Your task to perform on an android device: uninstall "Google Play Music" Image 0: 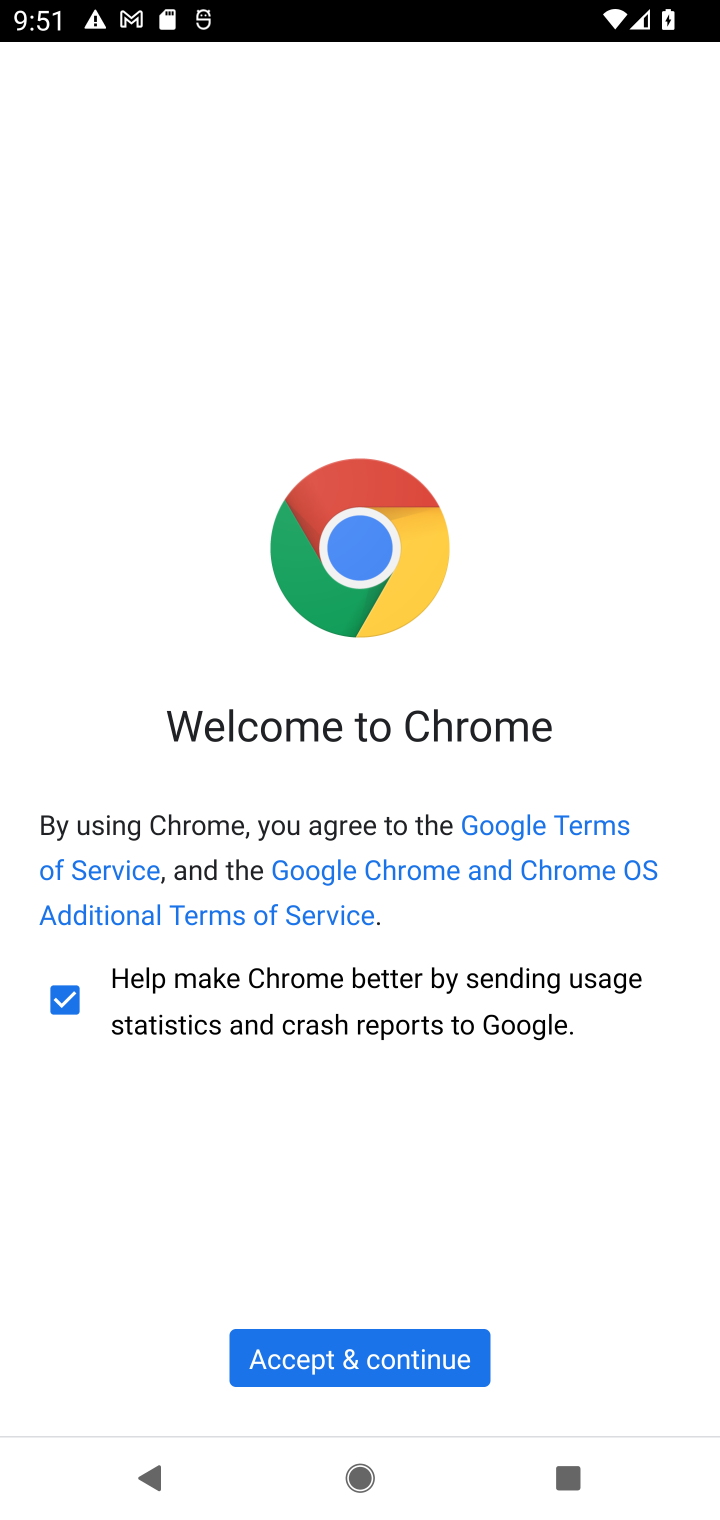
Step 0: press home button
Your task to perform on an android device: uninstall "Google Play Music" Image 1: 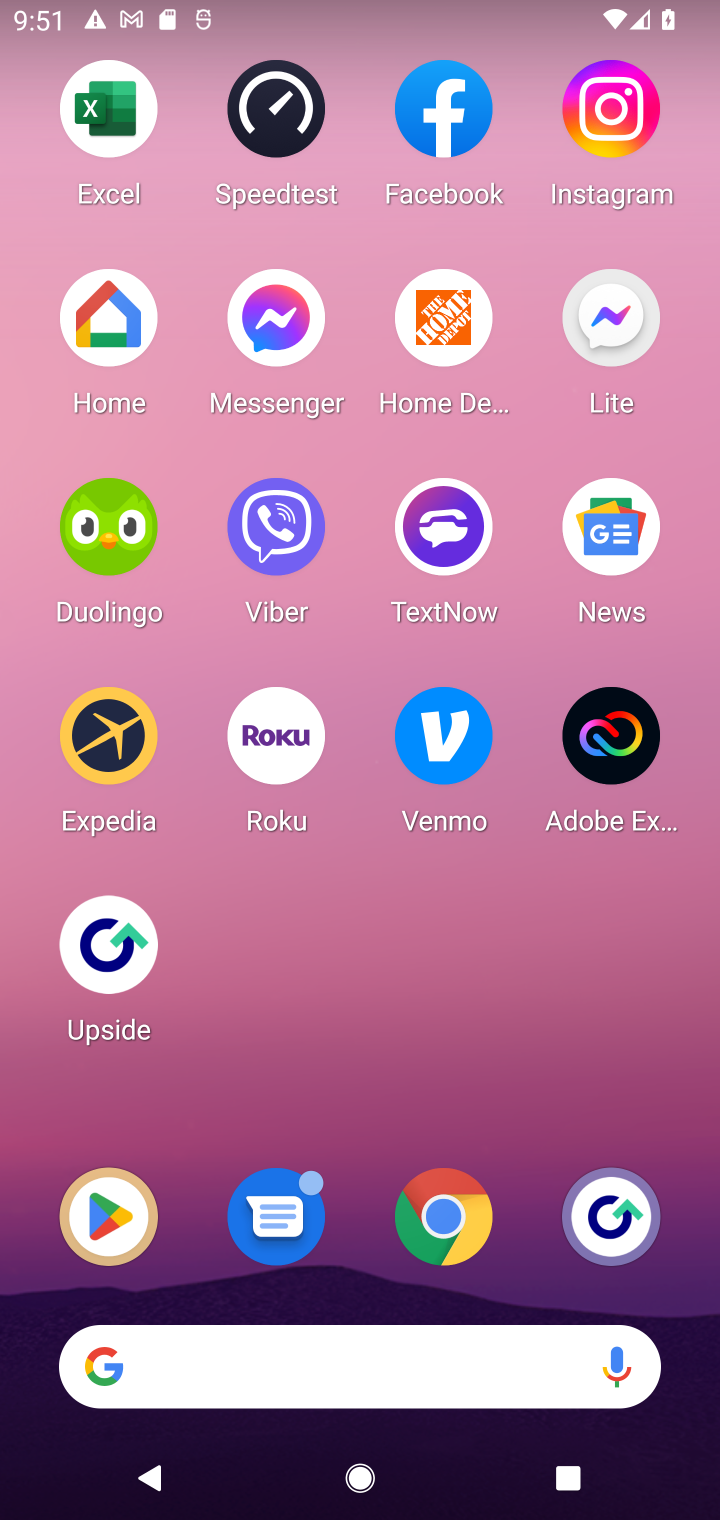
Step 1: click (104, 1220)
Your task to perform on an android device: uninstall "Google Play Music" Image 2: 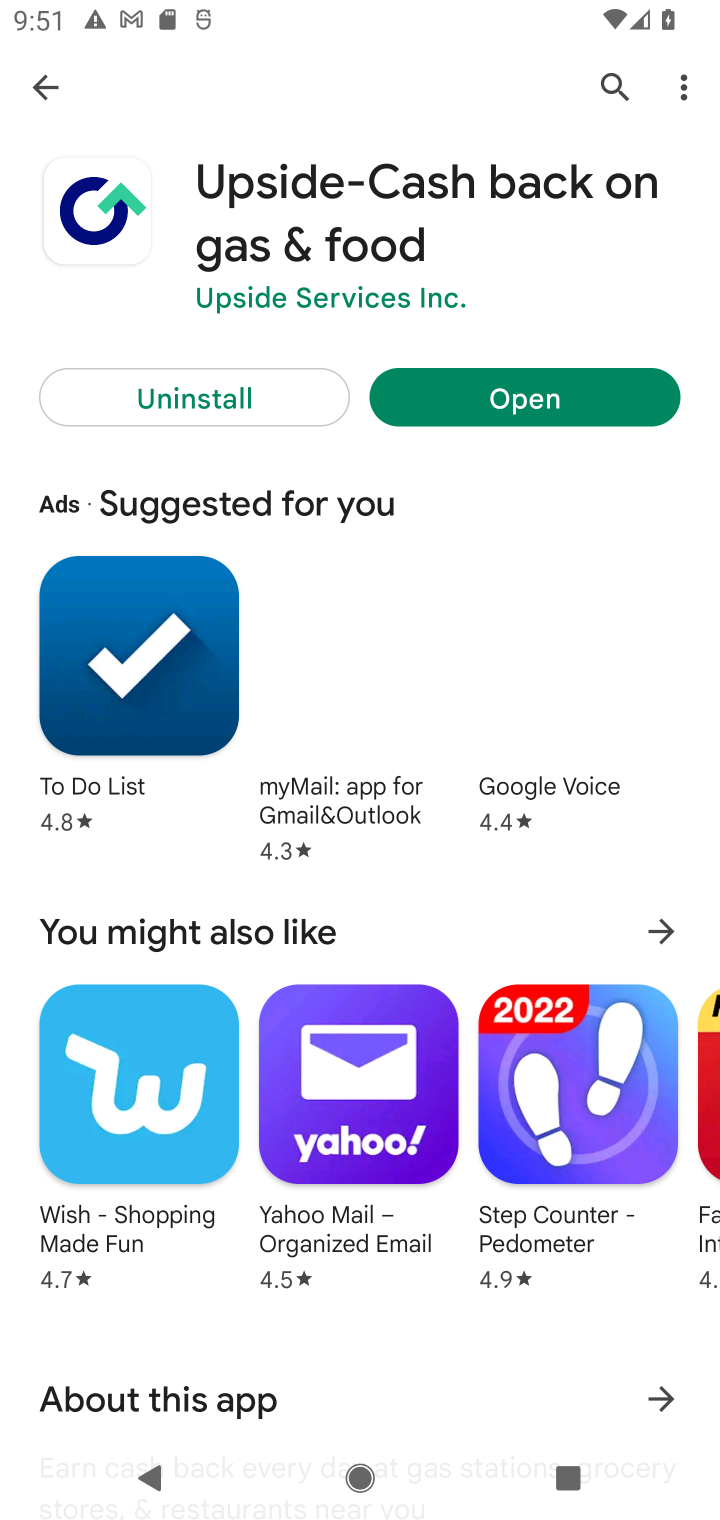
Step 2: click (609, 80)
Your task to perform on an android device: uninstall "Google Play Music" Image 3: 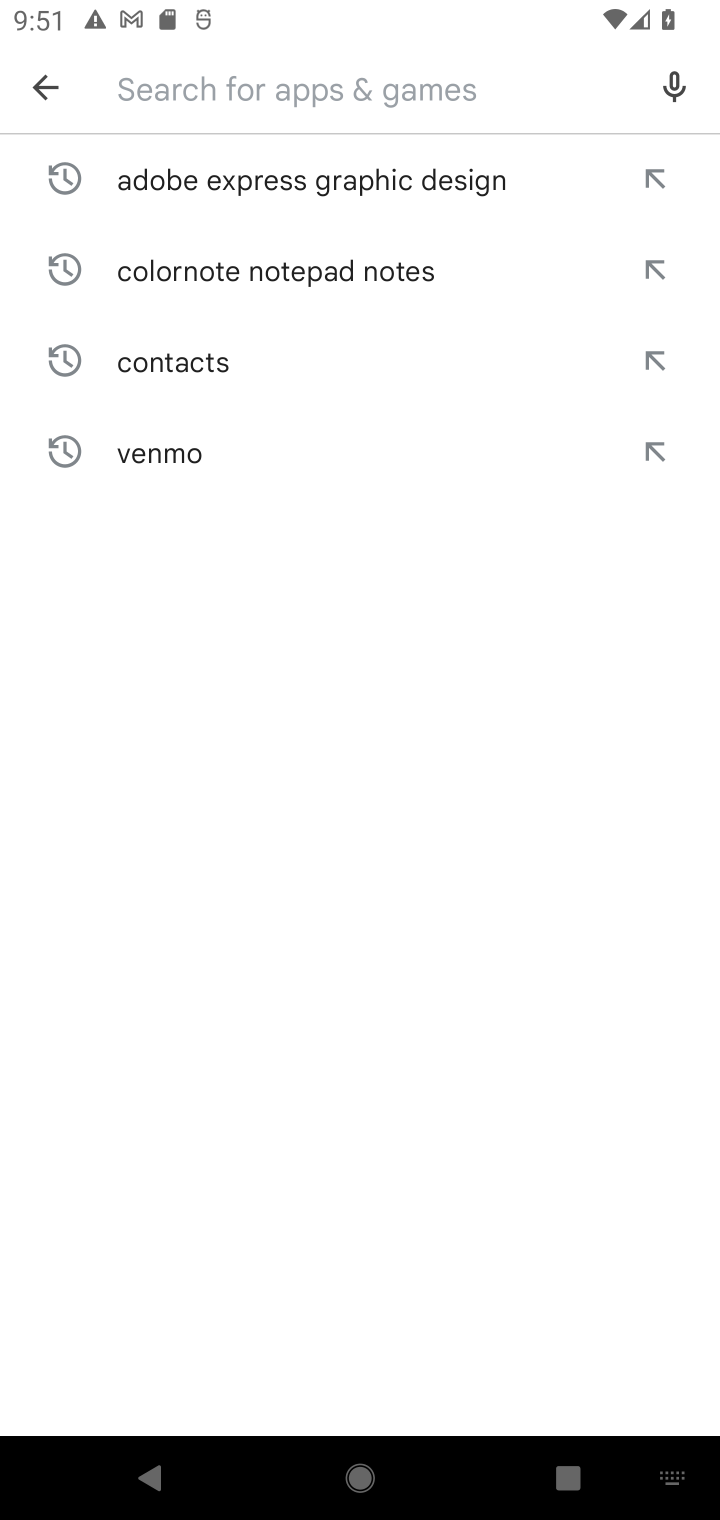
Step 3: type "Google Play Music"
Your task to perform on an android device: uninstall "Google Play Music" Image 4: 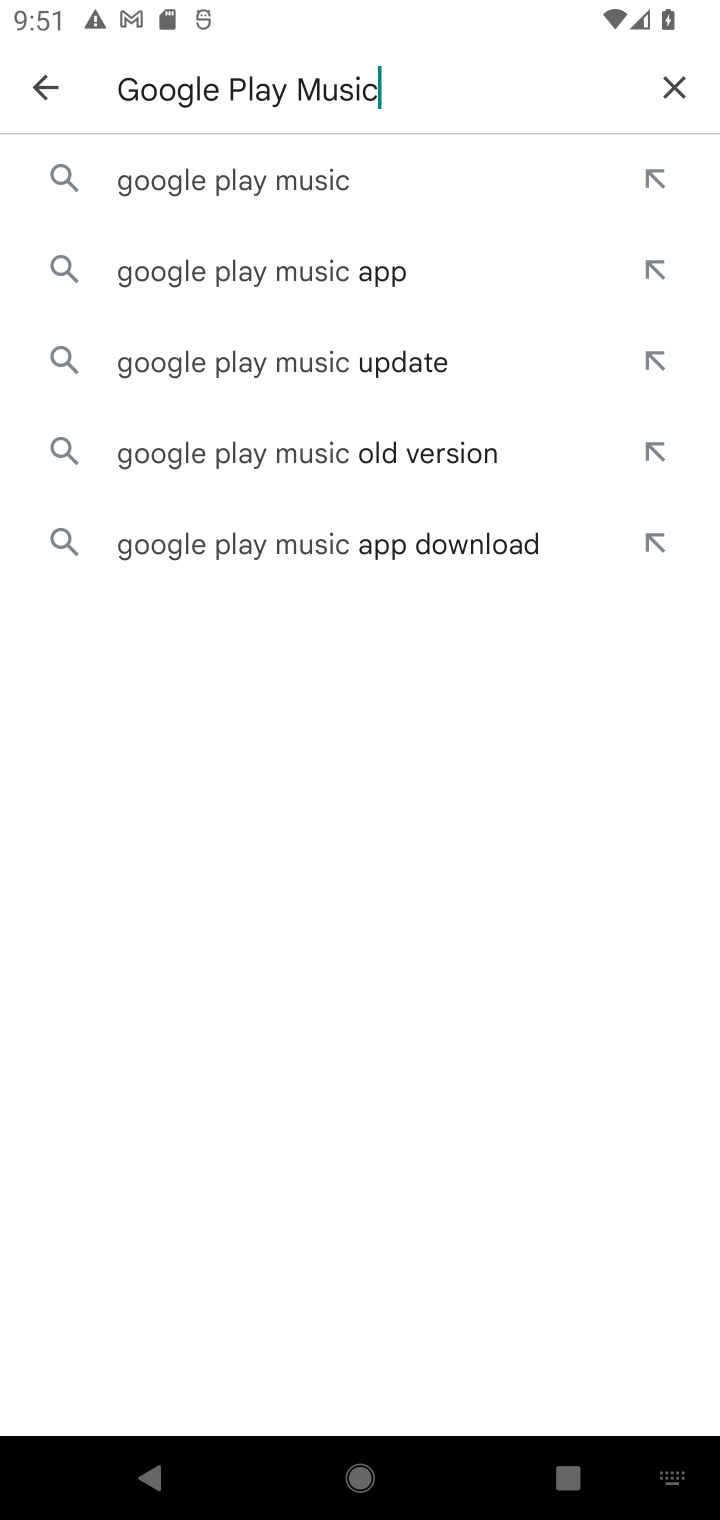
Step 4: click (210, 193)
Your task to perform on an android device: uninstall "Google Play Music" Image 5: 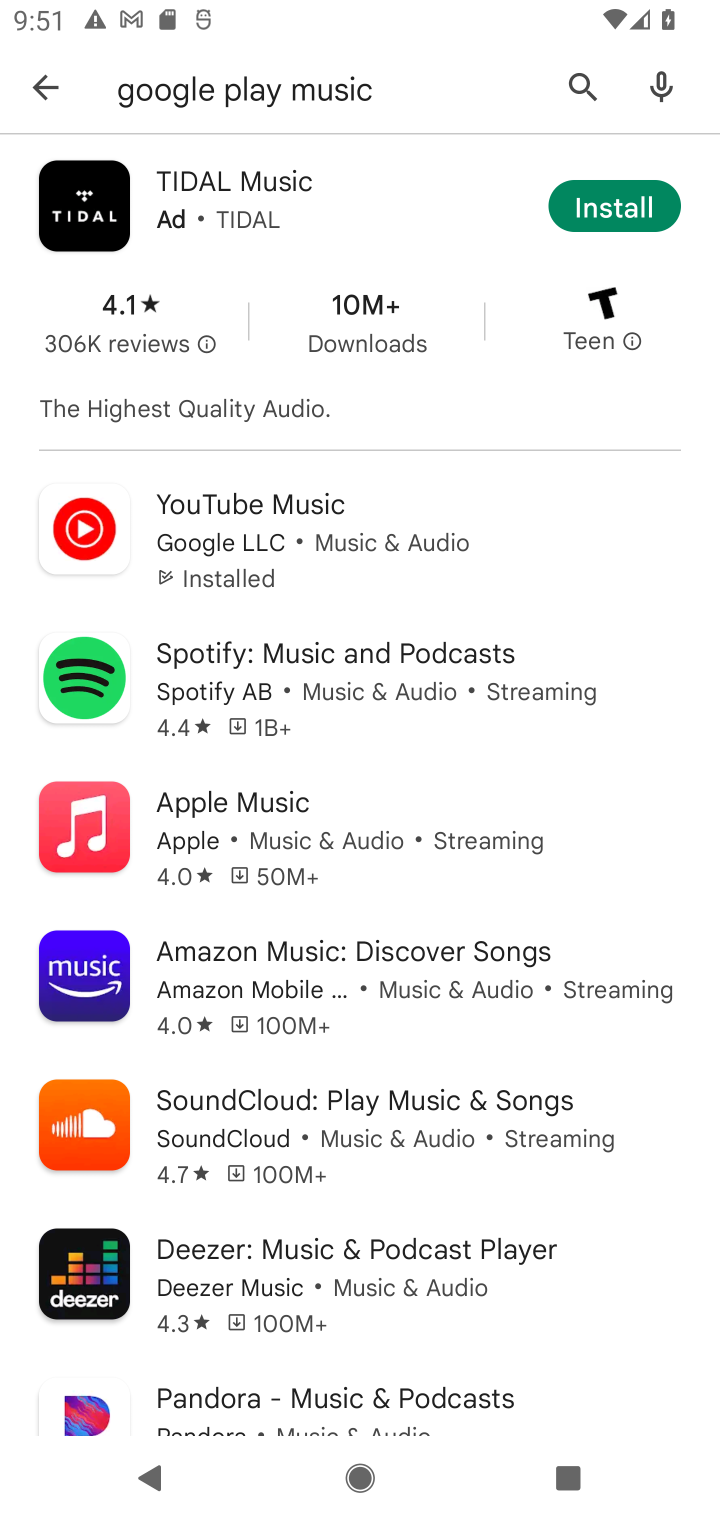
Step 5: task complete